Your task to perform on an android device: toggle priority inbox in the gmail app Image 0: 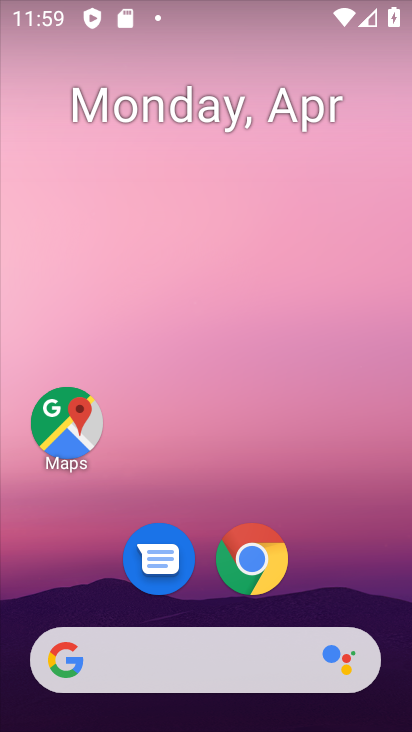
Step 0: drag from (398, 611) to (316, 161)
Your task to perform on an android device: toggle priority inbox in the gmail app Image 1: 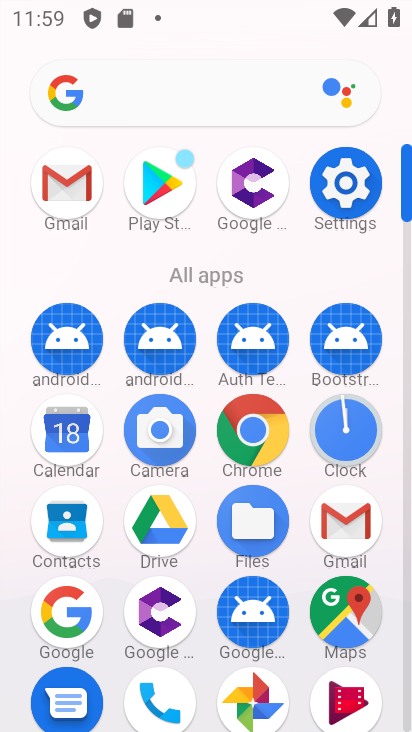
Step 1: click (71, 190)
Your task to perform on an android device: toggle priority inbox in the gmail app Image 2: 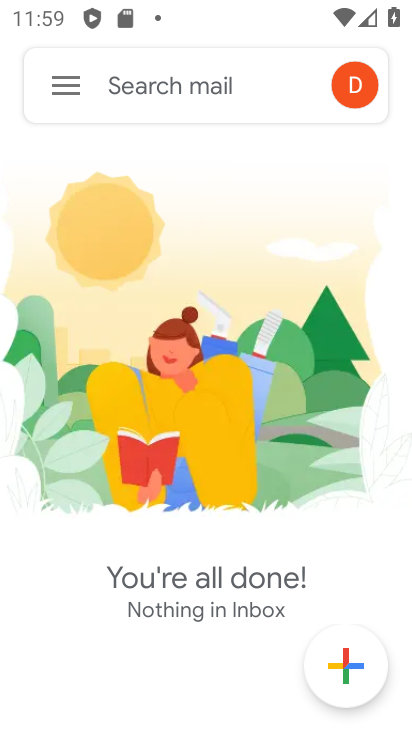
Step 2: click (74, 74)
Your task to perform on an android device: toggle priority inbox in the gmail app Image 3: 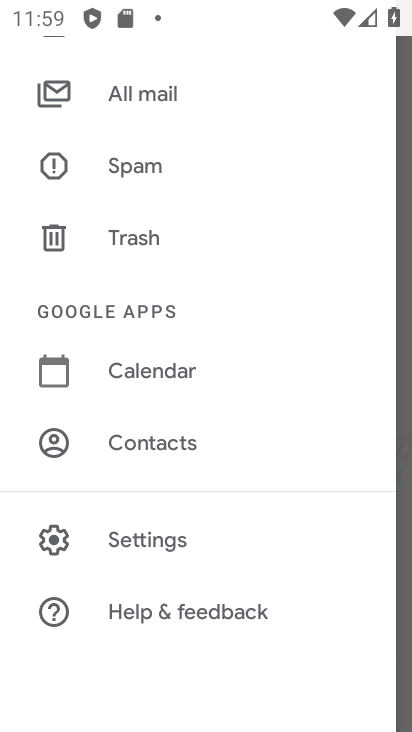
Step 3: click (165, 529)
Your task to perform on an android device: toggle priority inbox in the gmail app Image 4: 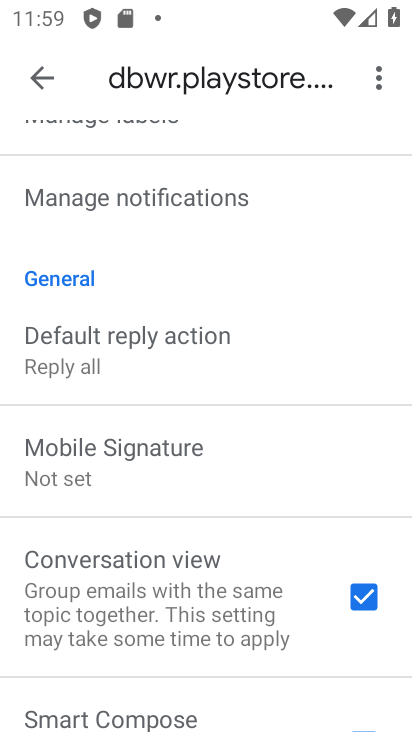
Step 4: drag from (293, 600) to (297, 197)
Your task to perform on an android device: toggle priority inbox in the gmail app Image 5: 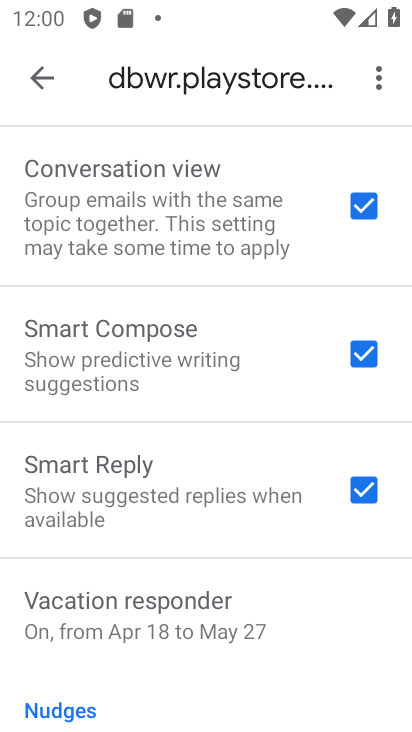
Step 5: drag from (266, 235) to (294, 701)
Your task to perform on an android device: toggle priority inbox in the gmail app Image 6: 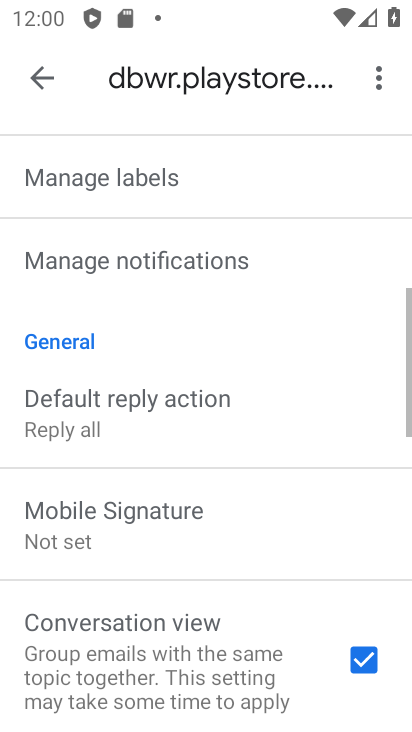
Step 6: drag from (284, 291) to (337, 692)
Your task to perform on an android device: toggle priority inbox in the gmail app Image 7: 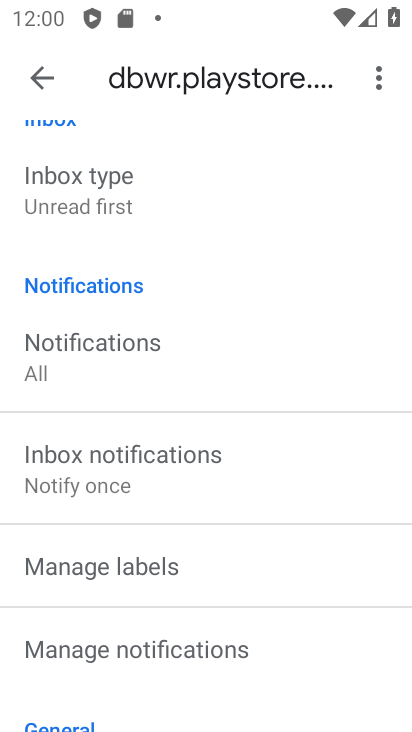
Step 7: drag from (318, 323) to (343, 517)
Your task to perform on an android device: toggle priority inbox in the gmail app Image 8: 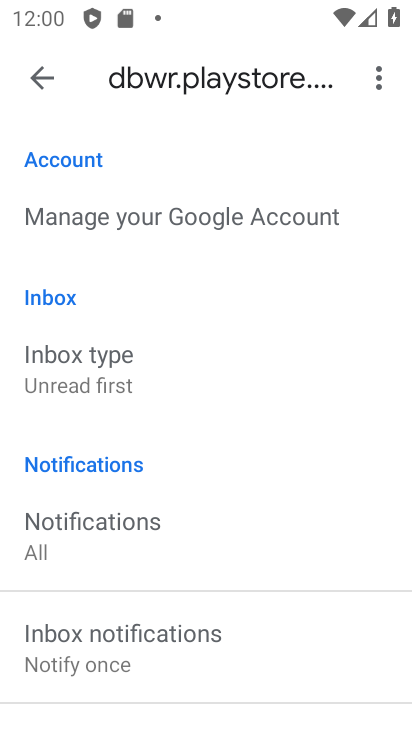
Step 8: click (273, 372)
Your task to perform on an android device: toggle priority inbox in the gmail app Image 9: 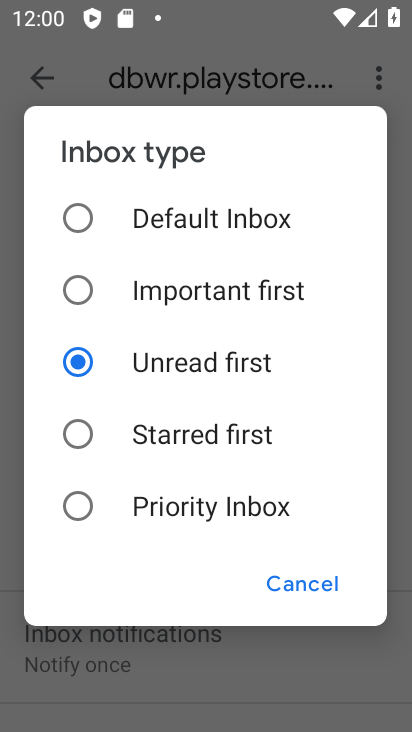
Step 9: click (259, 503)
Your task to perform on an android device: toggle priority inbox in the gmail app Image 10: 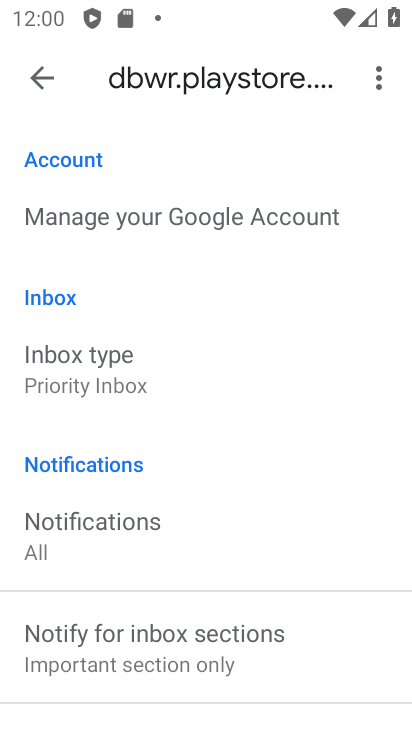
Step 10: task complete